Your task to perform on an android device: Go to network settings Image 0: 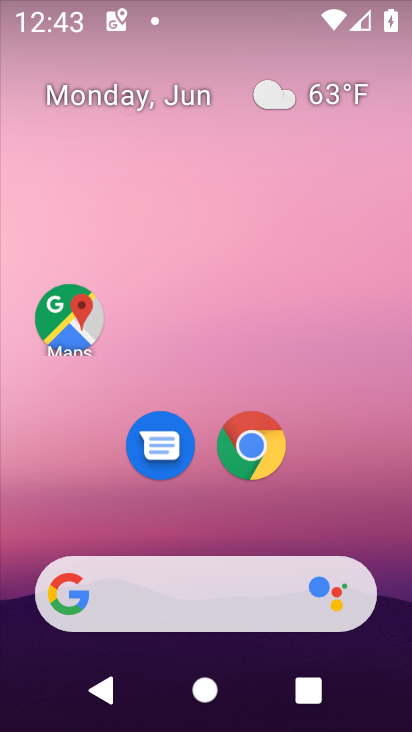
Step 0: drag from (262, 491) to (310, 7)
Your task to perform on an android device: Go to network settings Image 1: 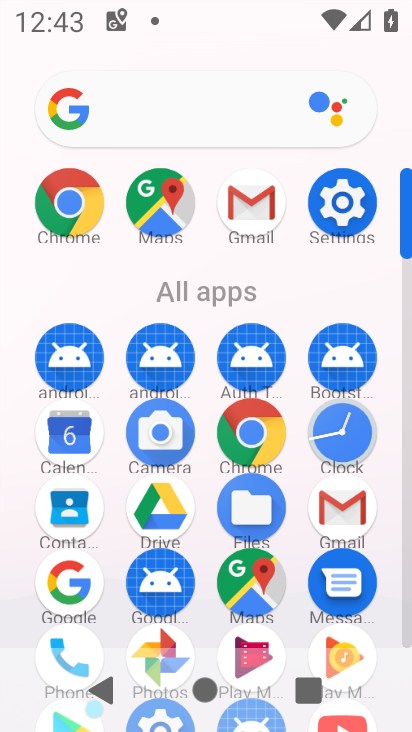
Step 1: click (341, 194)
Your task to perform on an android device: Go to network settings Image 2: 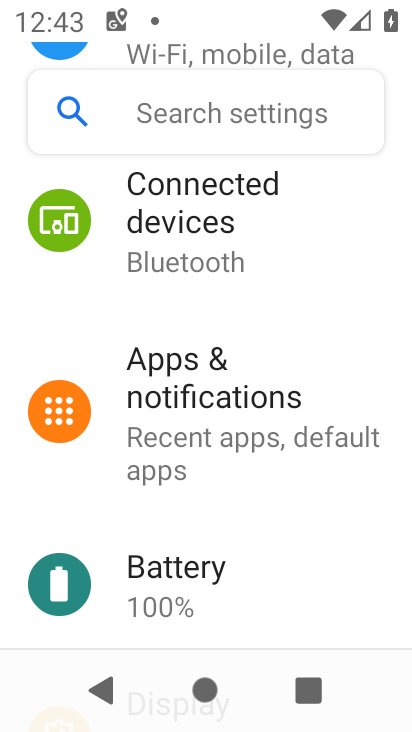
Step 2: drag from (184, 236) to (187, 671)
Your task to perform on an android device: Go to network settings Image 3: 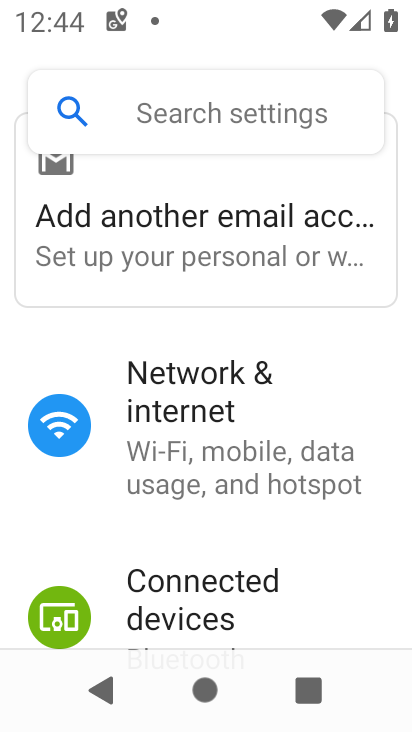
Step 3: click (177, 396)
Your task to perform on an android device: Go to network settings Image 4: 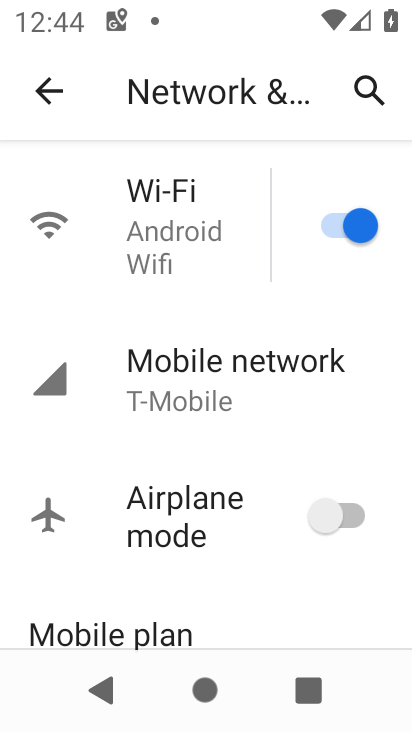
Step 4: click (225, 377)
Your task to perform on an android device: Go to network settings Image 5: 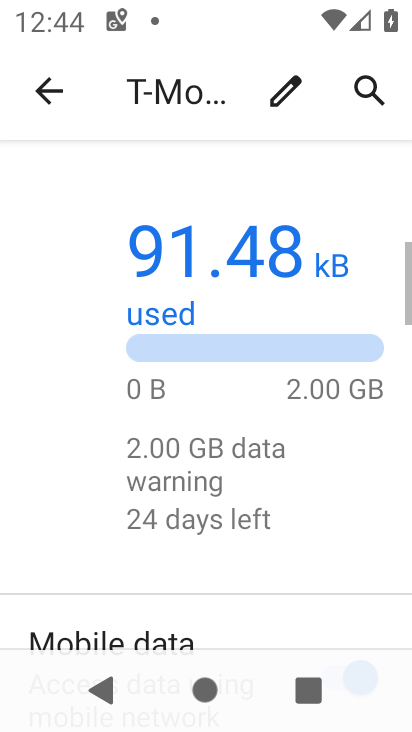
Step 5: task complete